Your task to perform on an android device: check data usage Image 0: 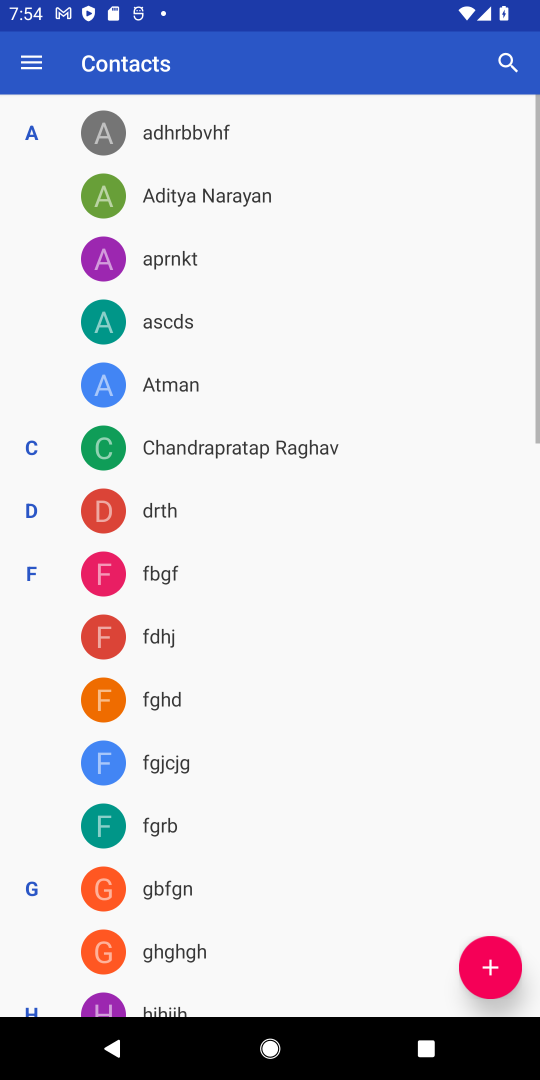
Step 0: press home button
Your task to perform on an android device: check data usage Image 1: 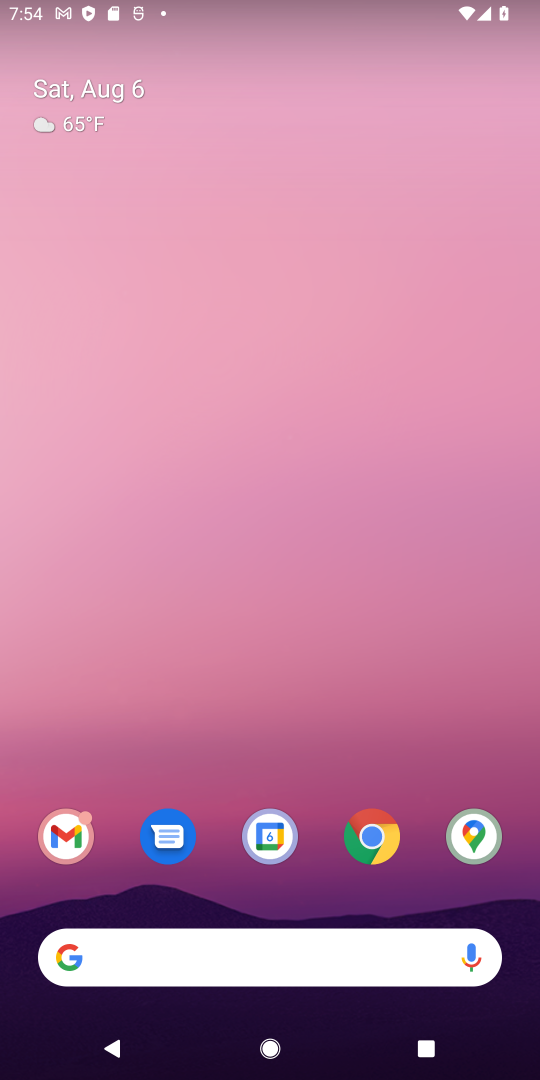
Step 1: drag from (436, 886) to (275, 99)
Your task to perform on an android device: check data usage Image 2: 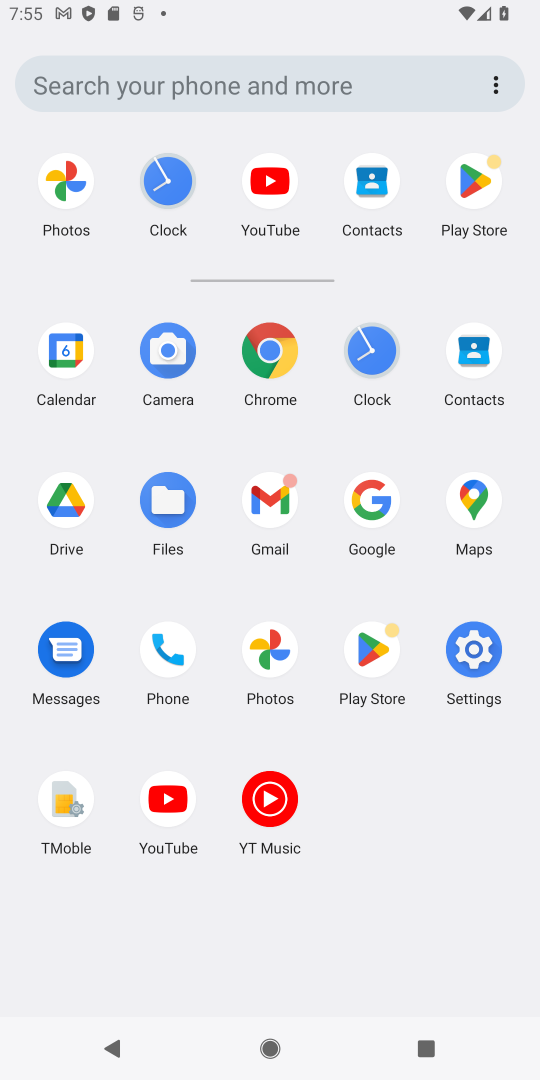
Step 2: click (502, 641)
Your task to perform on an android device: check data usage Image 3: 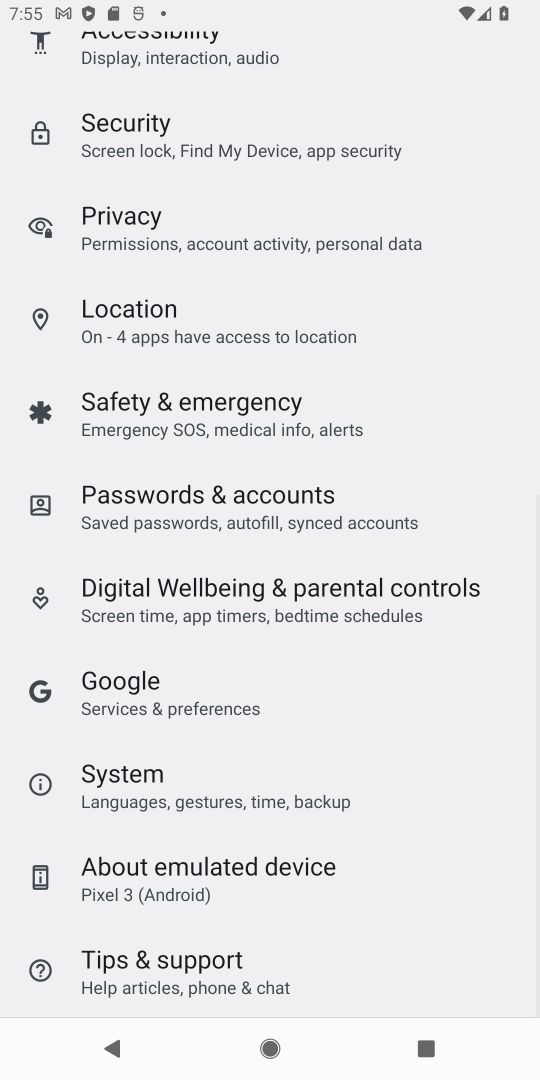
Step 3: task complete